Your task to perform on an android device: Go to battery settings Image 0: 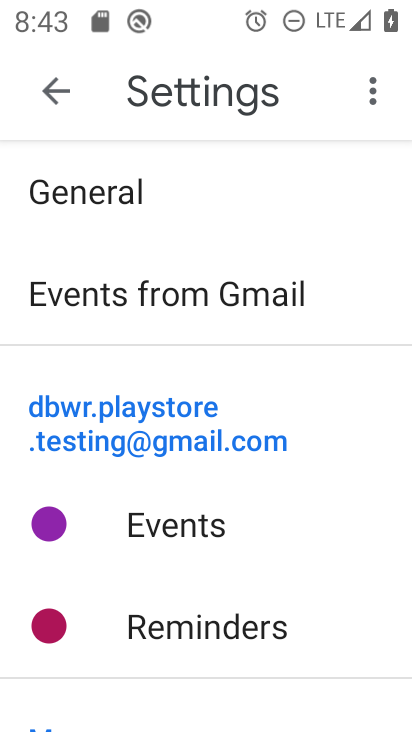
Step 0: press home button
Your task to perform on an android device: Go to battery settings Image 1: 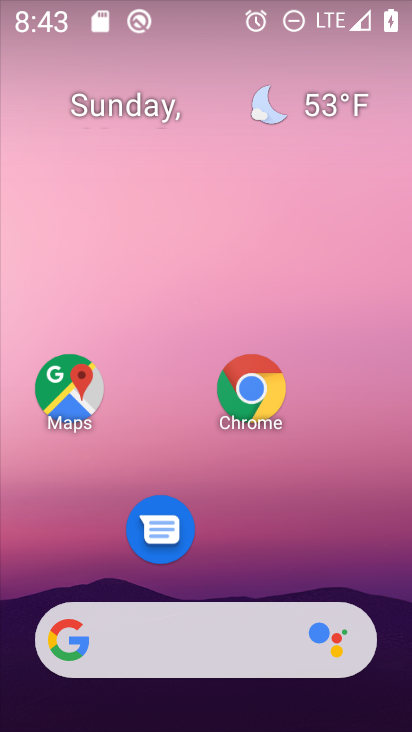
Step 1: drag from (299, 529) to (295, 125)
Your task to perform on an android device: Go to battery settings Image 2: 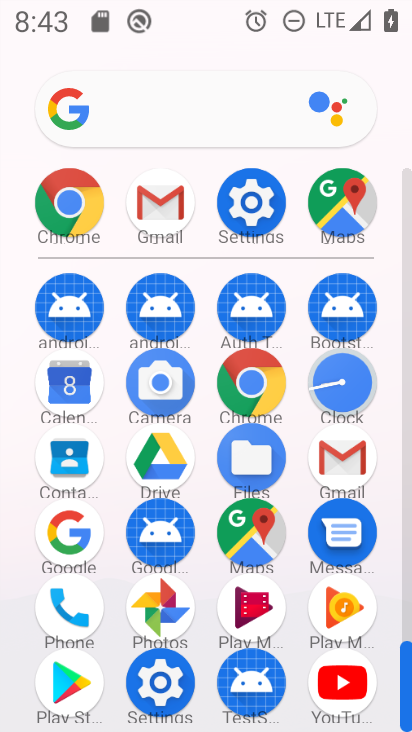
Step 2: click (248, 202)
Your task to perform on an android device: Go to battery settings Image 3: 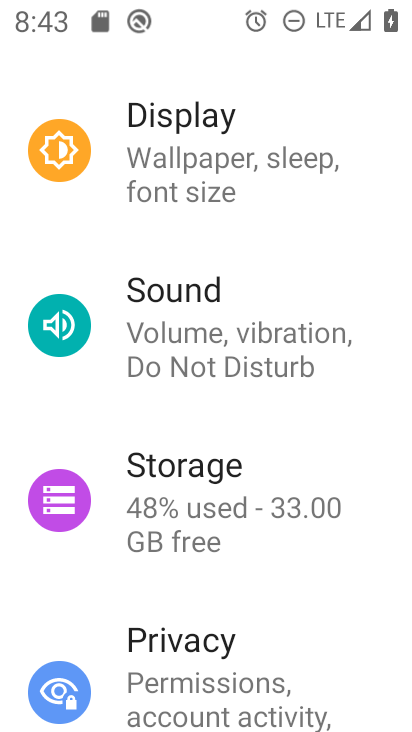
Step 3: drag from (230, 232) to (223, 487)
Your task to perform on an android device: Go to battery settings Image 4: 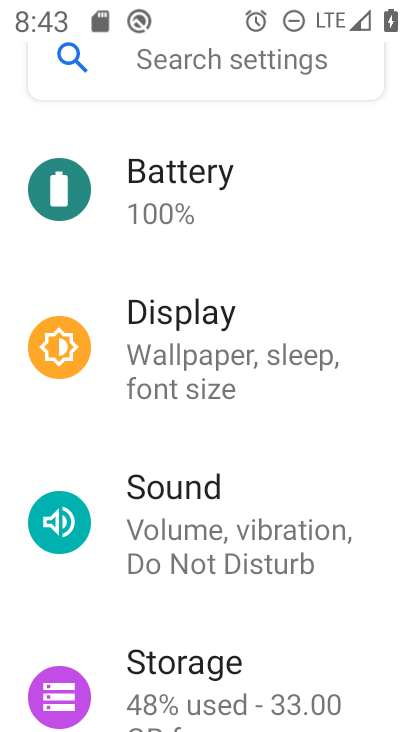
Step 4: click (197, 210)
Your task to perform on an android device: Go to battery settings Image 5: 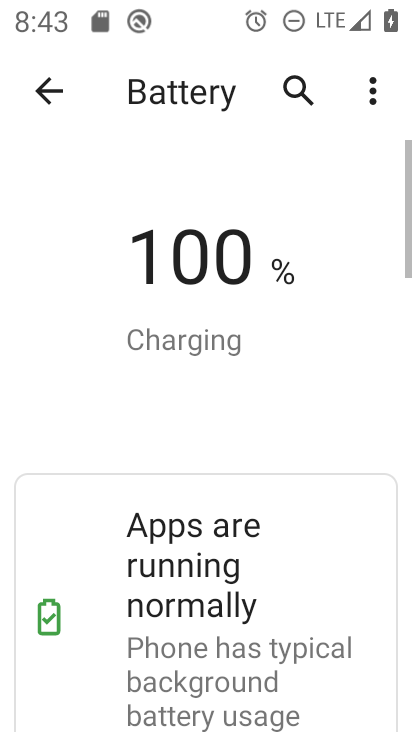
Step 5: task complete